Your task to perform on an android device: star an email in the gmail app Image 0: 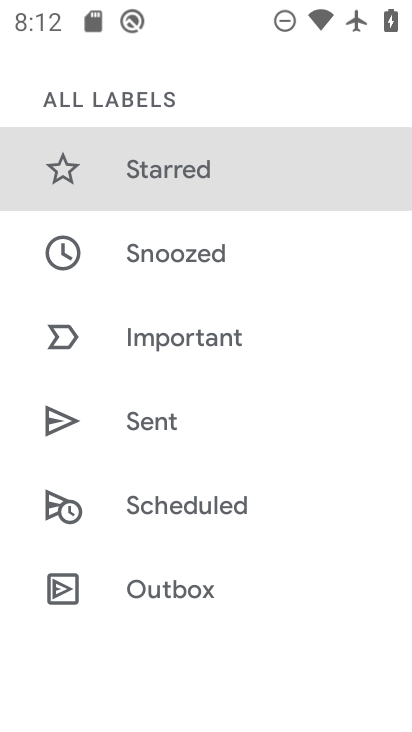
Step 0: press home button
Your task to perform on an android device: star an email in the gmail app Image 1: 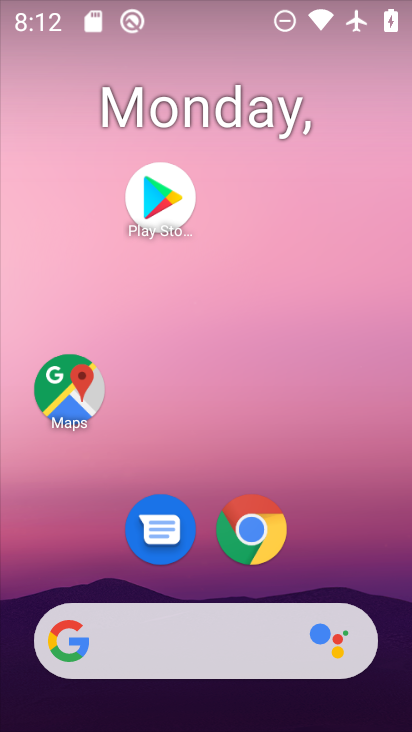
Step 1: drag from (275, 433) to (221, 0)
Your task to perform on an android device: star an email in the gmail app Image 2: 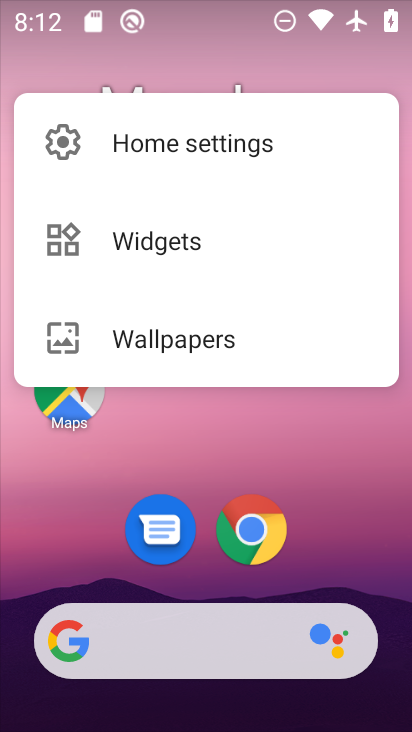
Step 2: click (314, 469)
Your task to perform on an android device: star an email in the gmail app Image 3: 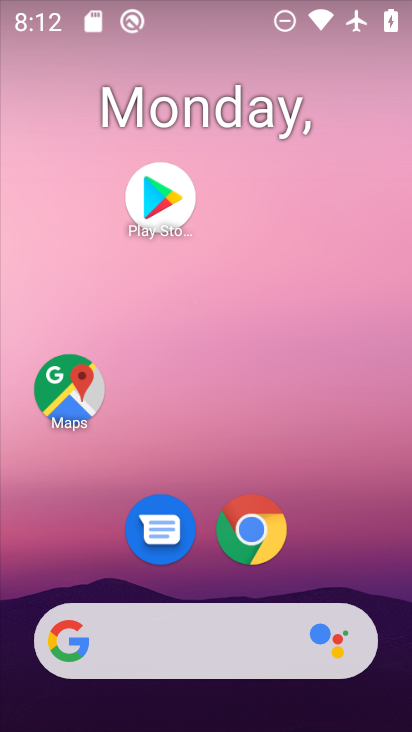
Step 3: drag from (342, 547) to (201, 62)
Your task to perform on an android device: star an email in the gmail app Image 4: 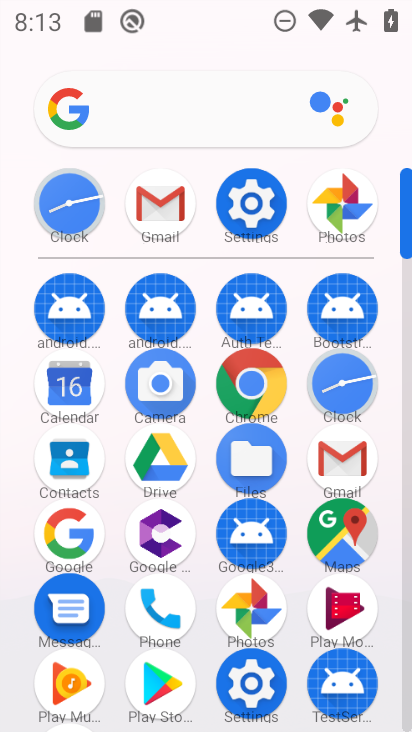
Step 4: click (334, 459)
Your task to perform on an android device: star an email in the gmail app Image 5: 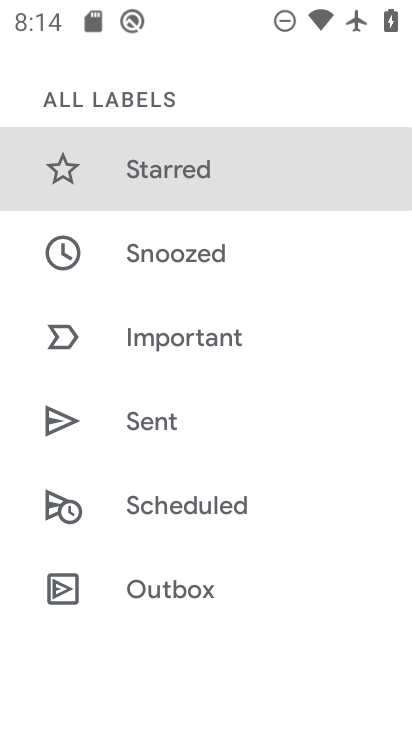
Step 5: drag from (202, 547) to (165, 246)
Your task to perform on an android device: star an email in the gmail app Image 6: 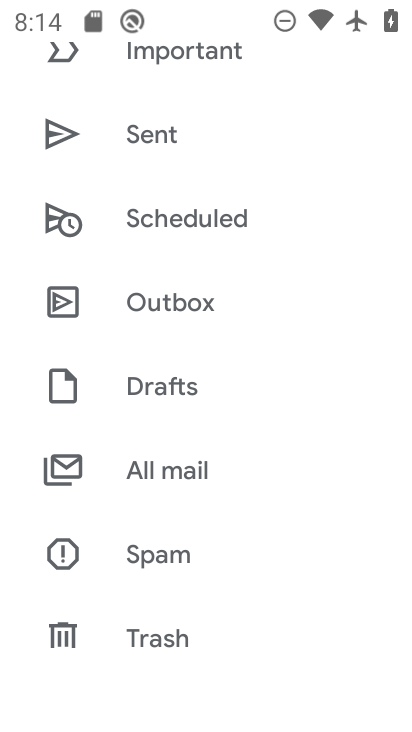
Step 6: click (171, 474)
Your task to perform on an android device: star an email in the gmail app Image 7: 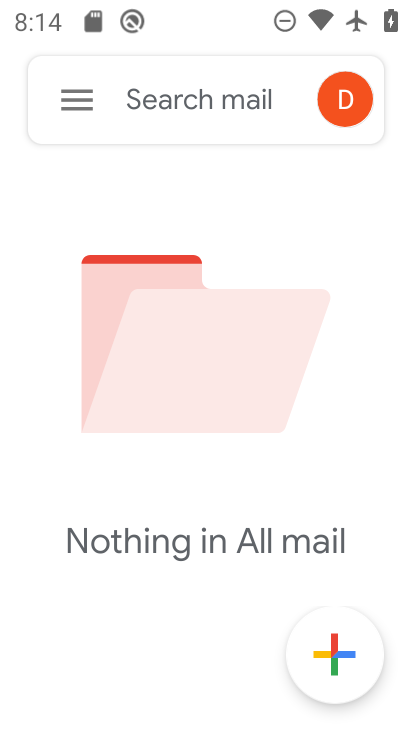
Step 7: task complete